Your task to perform on an android device: turn on notifications settings in the gmail app Image 0: 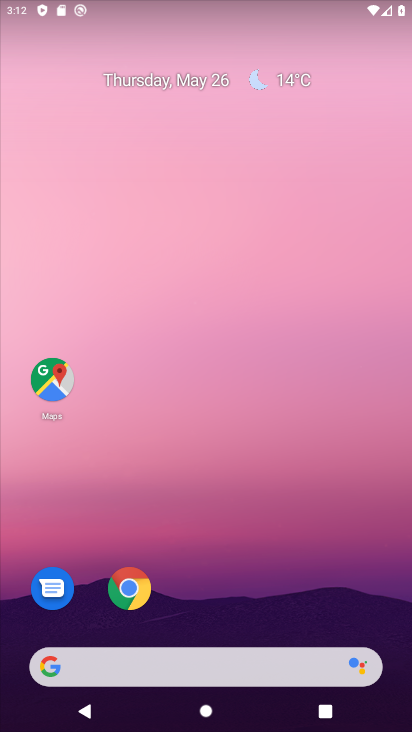
Step 0: drag from (352, 583) to (249, 110)
Your task to perform on an android device: turn on notifications settings in the gmail app Image 1: 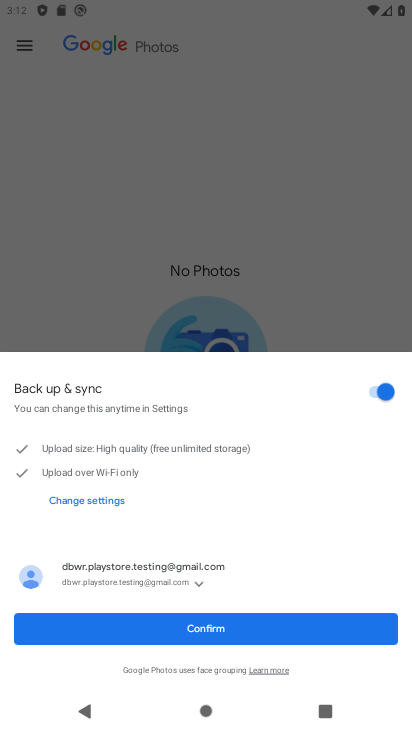
Step 1: click (203, 189)
Your task to perform on an android device: turn on notifications settings in the gmail app Image 2: 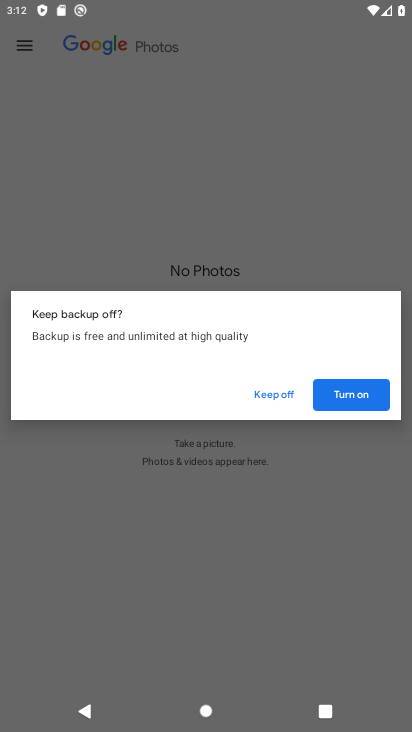
Step 2: press home button
Your task to perform on an android device: turn on notifications settings in the gmail app Image 3: 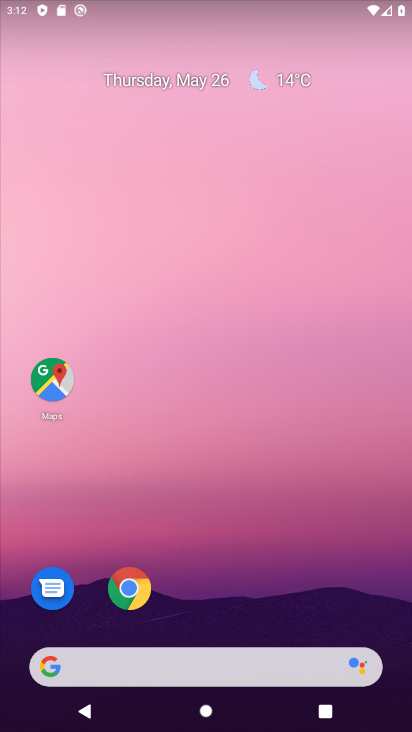
Step 3: drag from (254, 587) to (286, 152)
Your task to perform on an android device: turn on notifications settings in the gmail app Image 4: 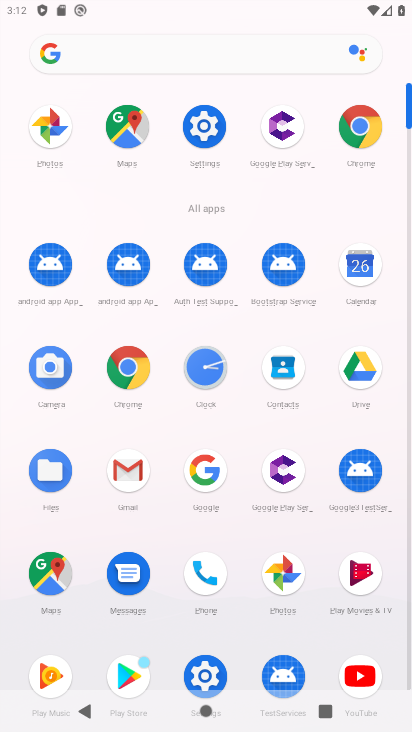
Step 4: click (136, 467)
Your task to perform on an android device: turn on notifications settings in the gmail app Image 5: 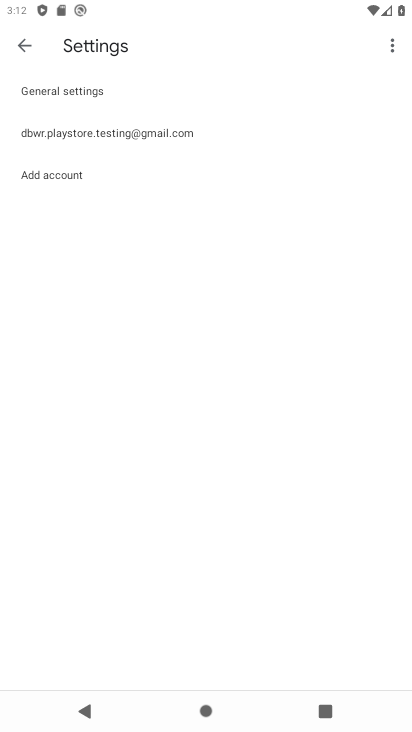
Step 5: click (21, 43)
Your task to perform on an android device: turn on notifications settings in the gmail app Image 6: 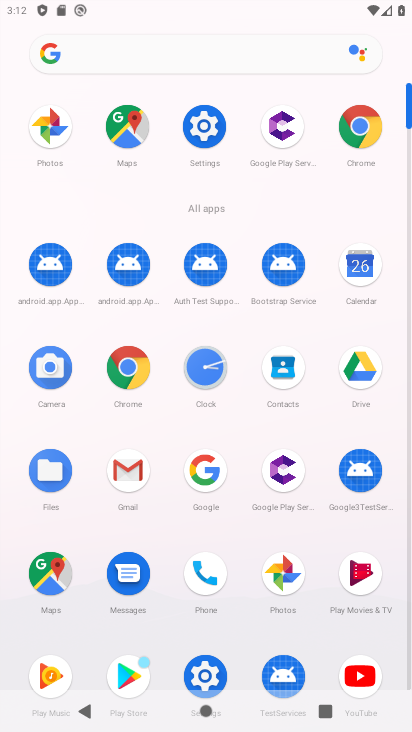
Step 6: task complete